Your task to perform on an android device: Go to battery settings Image 0: 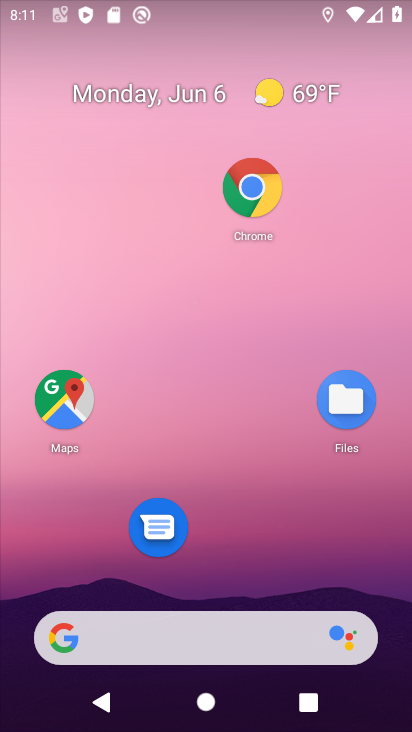
Step 0: drag from (231, 482) to (201, 112)
Your task to perform on an android device: Go to battery settings Image 1: 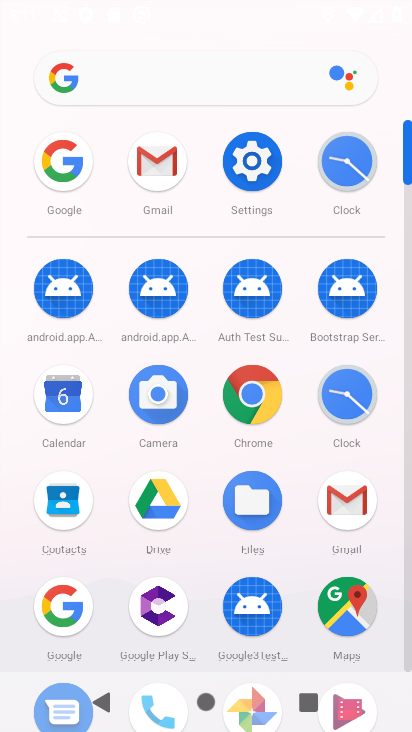
Step 1: click (256, 150)
Your task to perform on an android device: Go to battery settings Image 2: 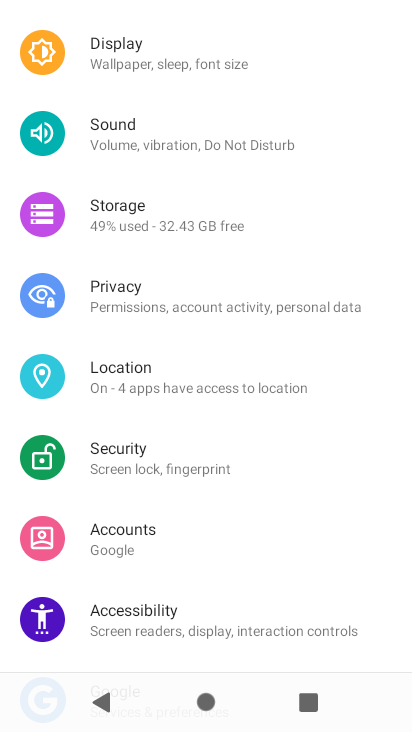
Step 2: drag from (177, 196) to (251, 413)
Your task to perform on an android device: Go to battery settings Image 3: 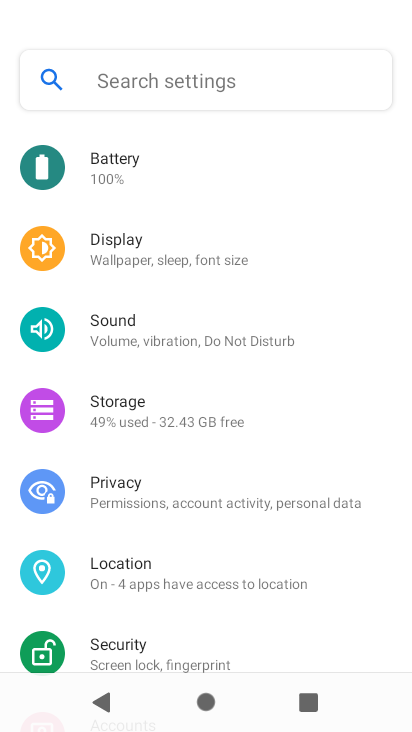
Step 3: click (130, 174)
Your task to perform on an android device: Go to battery settings Image 4: 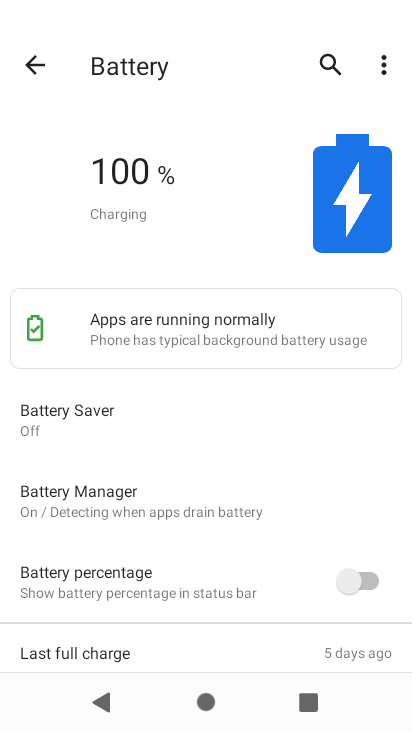
Step 4: task complete